Your task to perform on an android device: open the mobile data screen to see how much data has been used Image 0: 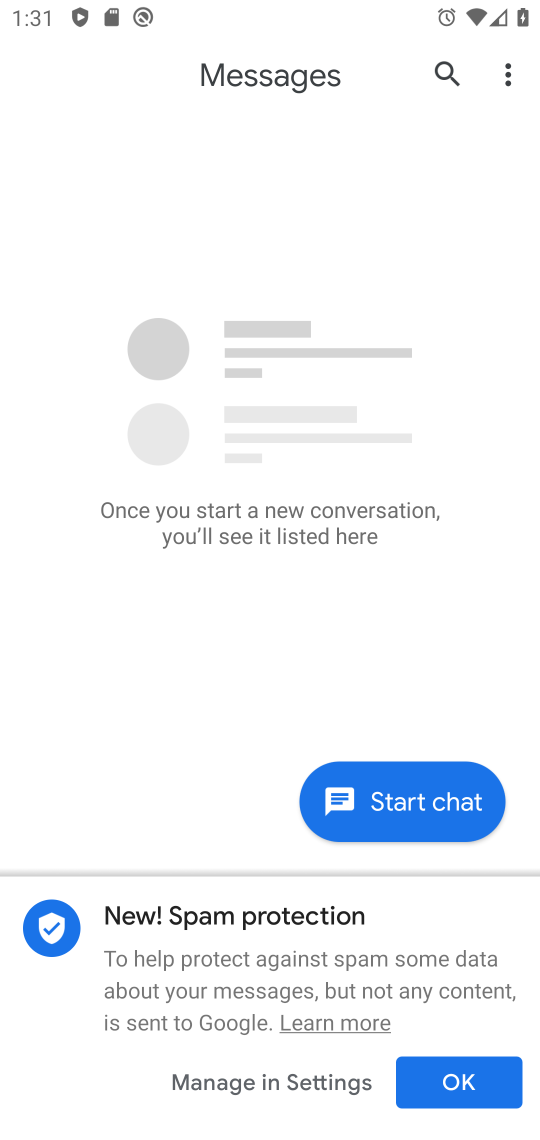
Step 0: drag from (249, 772) to (296, 41)
Your task to perform on an android device: open the mobile data screen to see how much data has been used Image 1: 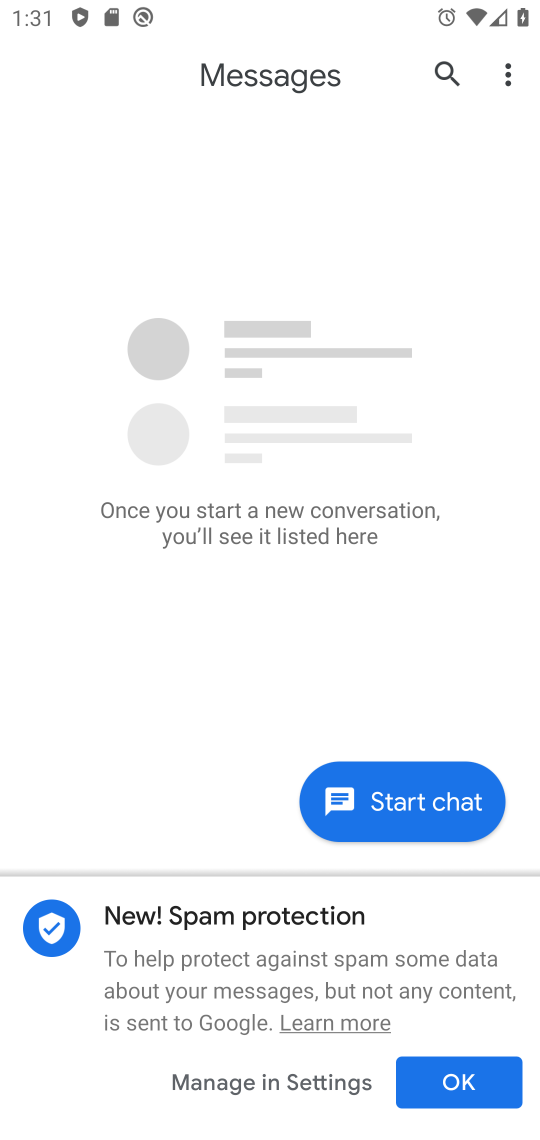
Step 1: drag from (284, 980) to (336, 340)
Your task to perform on an android device: open the mobile data screen to see how much data has been used Image 2: 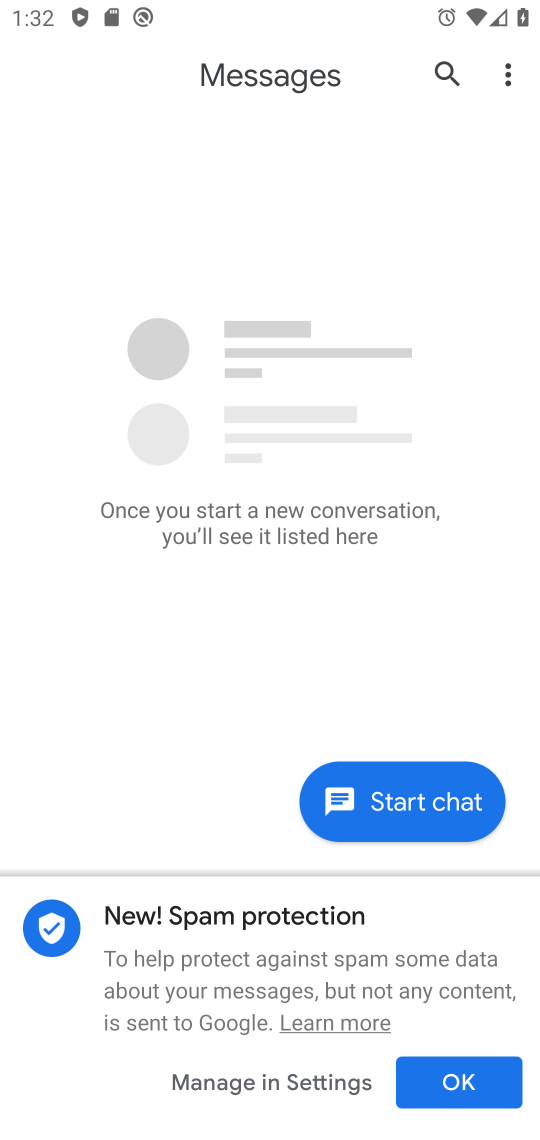
Step 2: press home button
Your task to perform on an android device: open the mobile data screen to see how much data has been used Image 3: 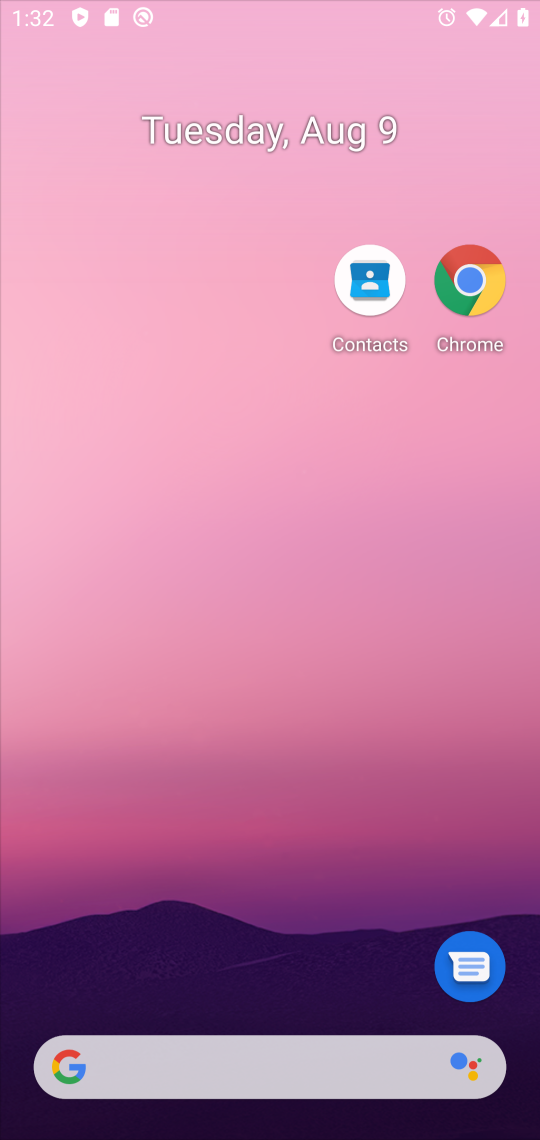
Step 3: drag from (320, 660) to (351, 248)
Your task to perform on an android device: open the mobile data screen to see how much data has been used Image 4: 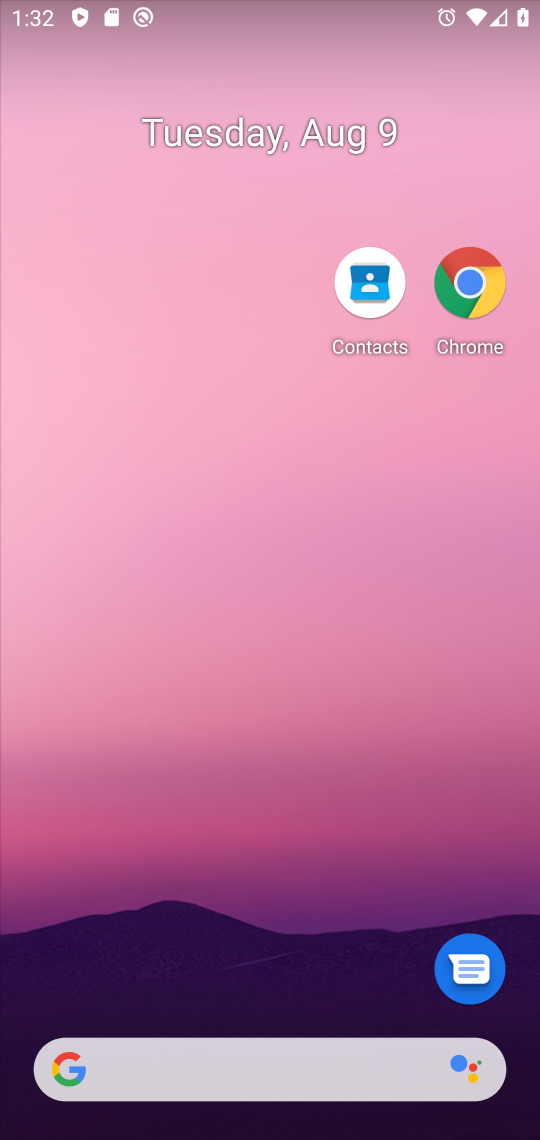
Step 4: drag from (365, 410) to (397, 208)
Your task to perform on an android device: open the mobile data screen to see how much data has been used Image 5: 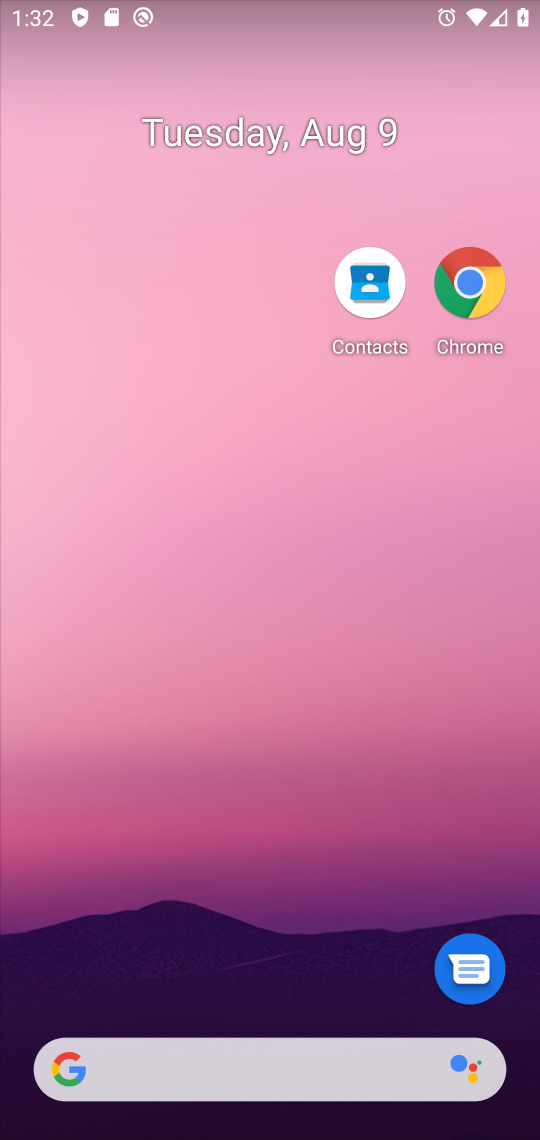
Step 5: drag from (251, 868) to (356, 210)
Your task to perform on an android device: open the mobile data screen to see how much data has been used Image 6: 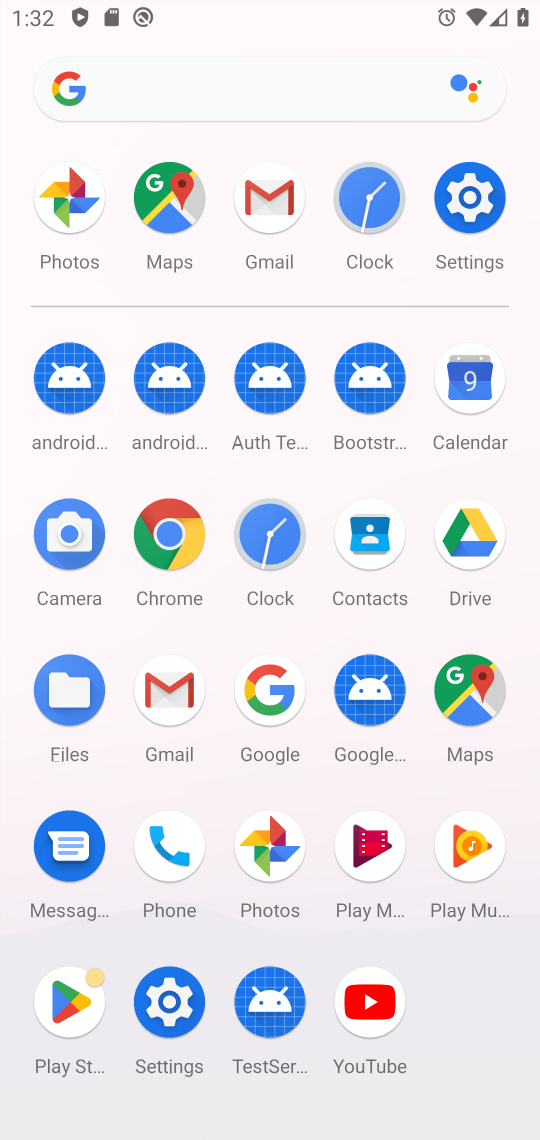
Step 6: drag from (306, 1046) to (298, 330)
Your task to perform on an android device: open the mobile data screen to see how much data has been used Image 7: 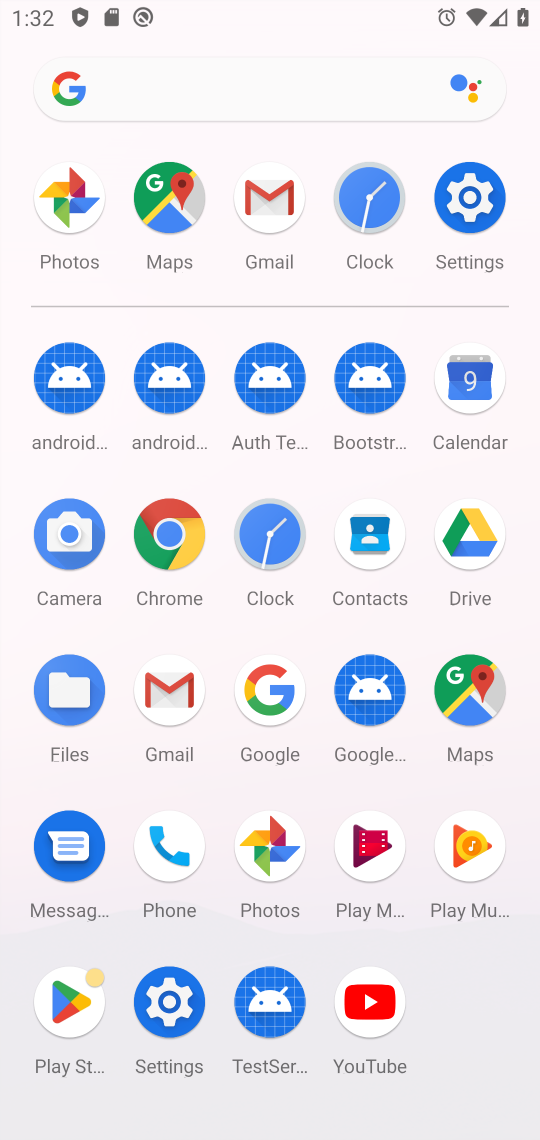
Step 7: click (170, 989)
Your task to perform on an android device: open the mobile data screen to see how much data has been used Image 8: 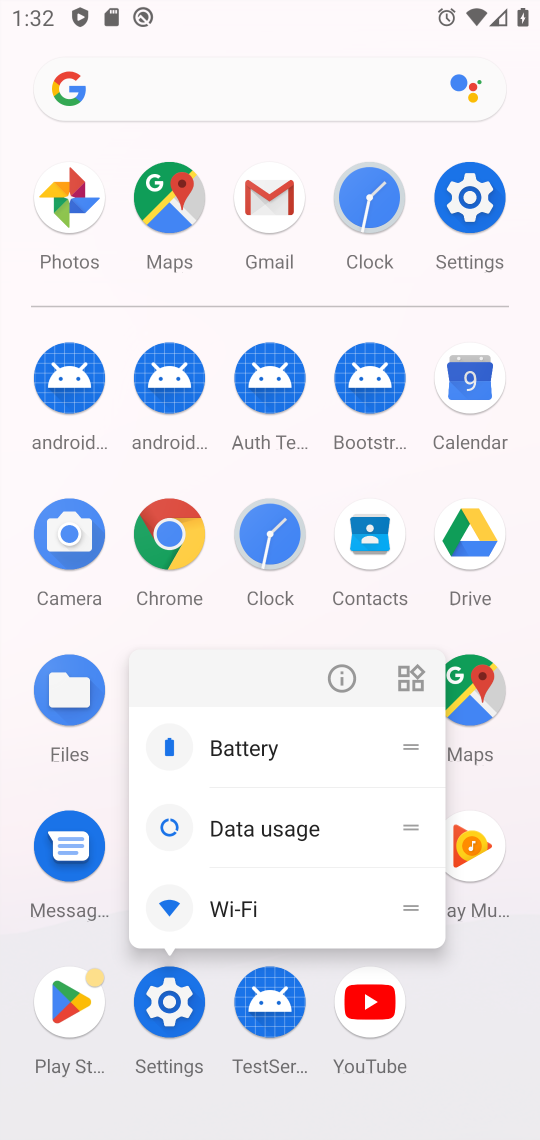
Step 8: click (331, 667)
Your task to perform on an android device: open the mobile data screen to see how much data has been used Image 9: 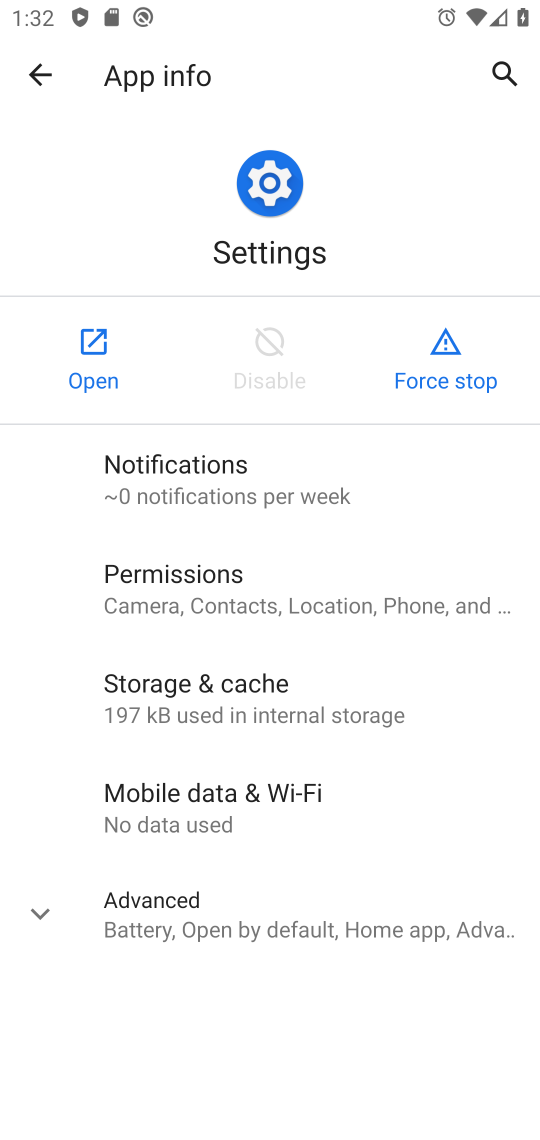
Step 9: click (115, 370)
Your task to perform on an android device: open the mobile data screen to see how much data has been used Image 10: 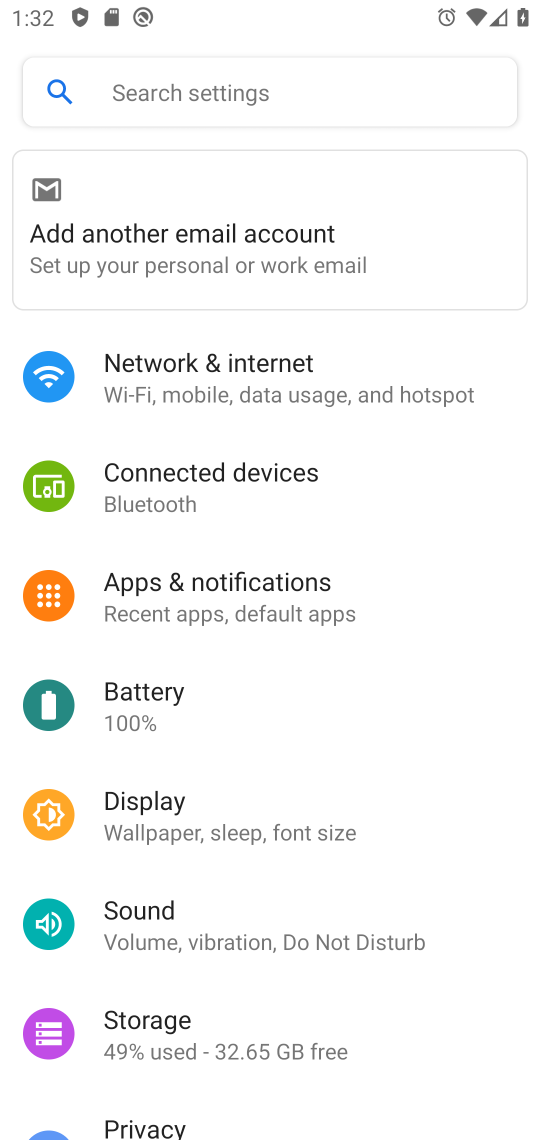
Step 10: click (266, 367)
Your task to perform on an android device: open the mobile data screen to see how much data has been used Image 11: 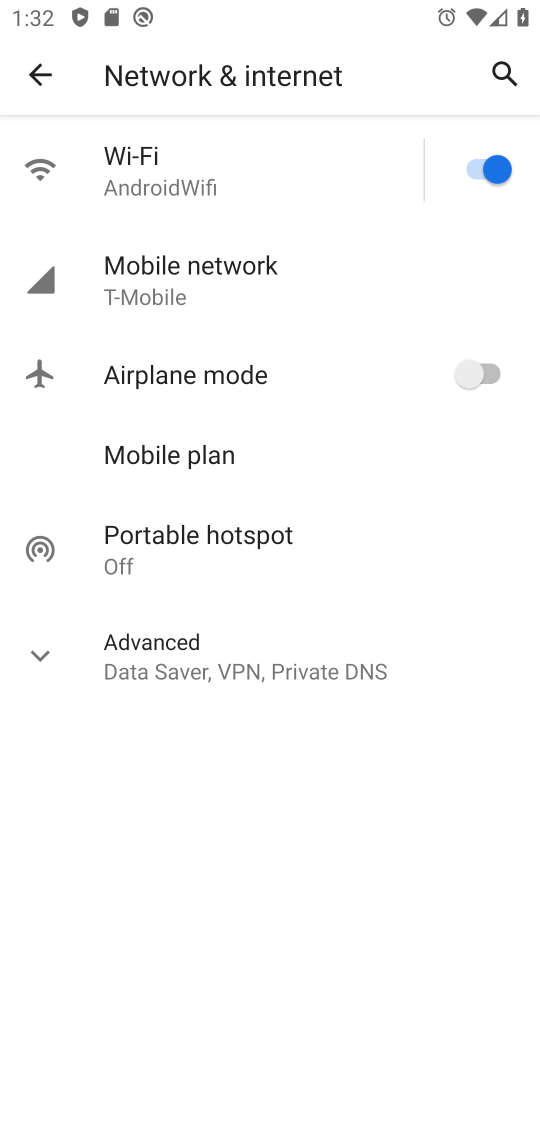
Step 11: click (302, 270)
Your task to perform on an android device: open the mobile data screen to see how much data has been used Image 12: 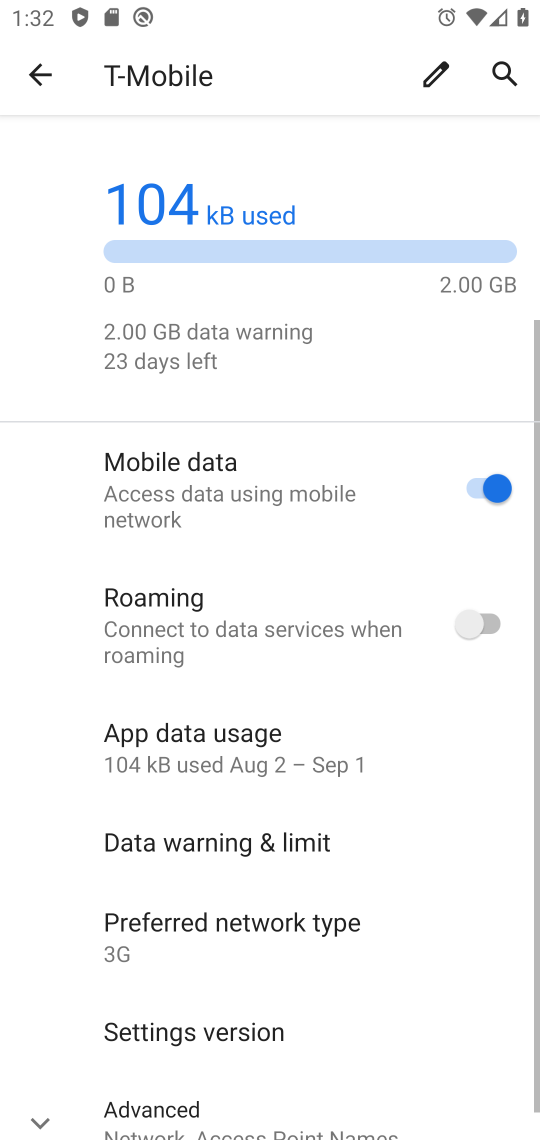
Step 12: task complete